Your task to perform on an android device: set an alarm Image 0: 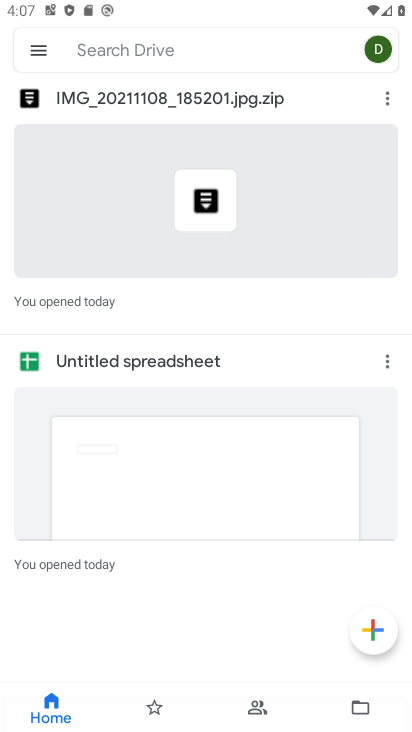
Step 0: press home button
Your task to perform on an android device: set an alarm Image 1: 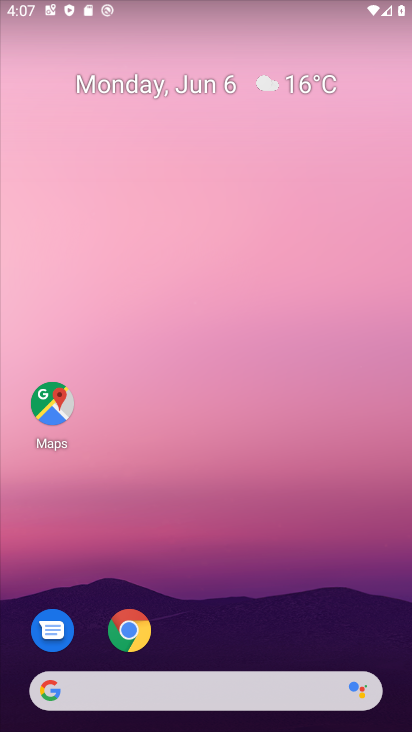
Step 1: drag from (318, 457) to (242, 62)
Your task to perform on an android device: set an alarm Image 2: 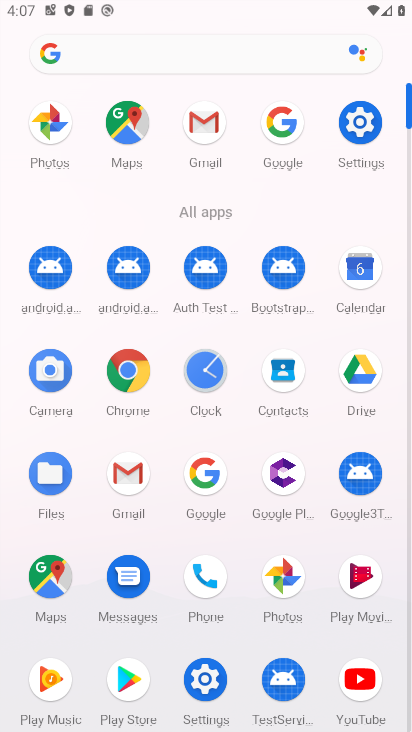
Step 2: click (204, 363)
Your task to perform on an android device: set an alarm Image 3: 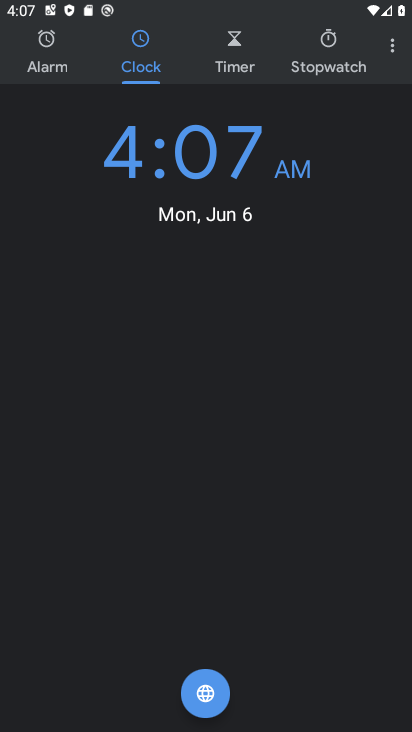
Step 3: click (46, 58)
Your task to perform on an android device: set an alarm Image 4: 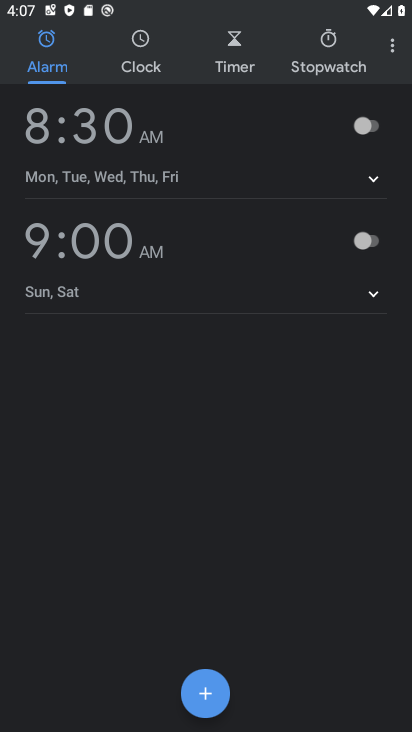
Step 4: click (362, 129)
Your task to perform on an android device: set an alarm Image 5: 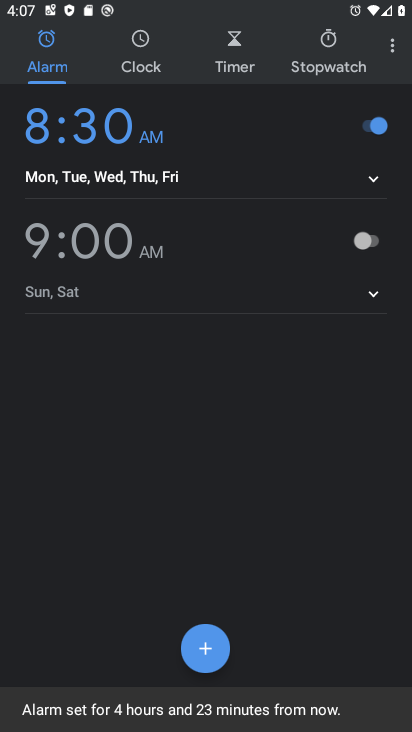
Step 5: task complete